Your task to perform on an android device: Open the phone app and click the voicemail tab. Image 0: 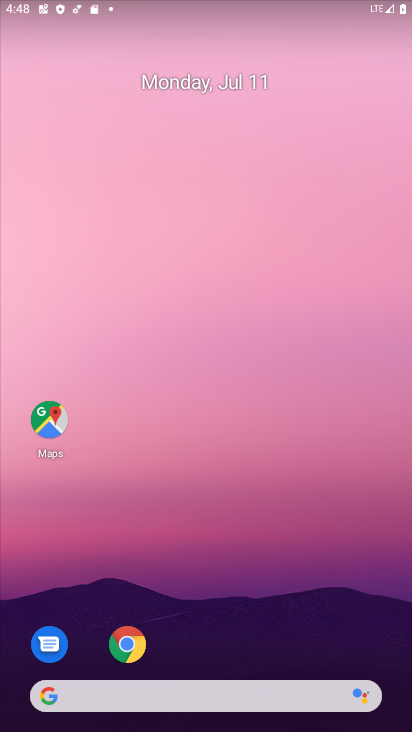
Step 0: press home button
Your task to perform on an android device: Open the phone app and click the voicemail tab. Image 1: 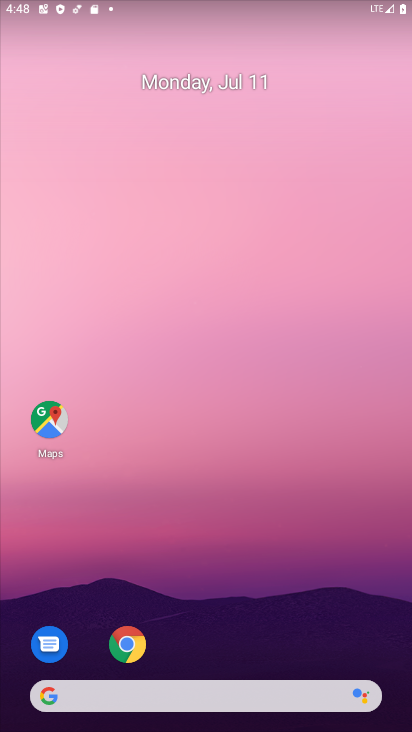
Step 1: drag from (231, 611) to (254, 296)
Your task to perform on an android device: Open the phone app and click the voicemail tab. Image 2: 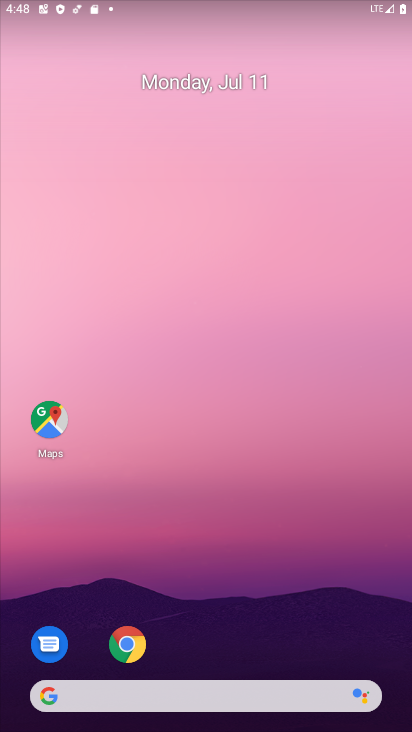
Step 2: drag from (274, 665) to (290, 159)
Your task to perform on an android device: Open the phone app and click the voicemail tab. Image 3: 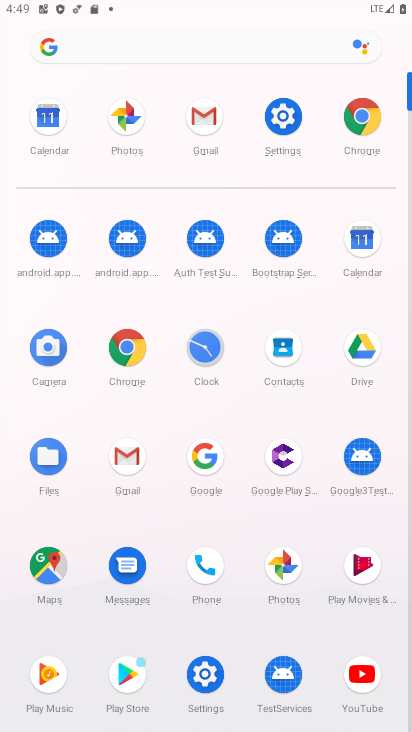
Step 3: drag from (237, 541) to (206, 564)
Your task to perform on an android device: Open the phone app and click the voicemail tab. Image 4: 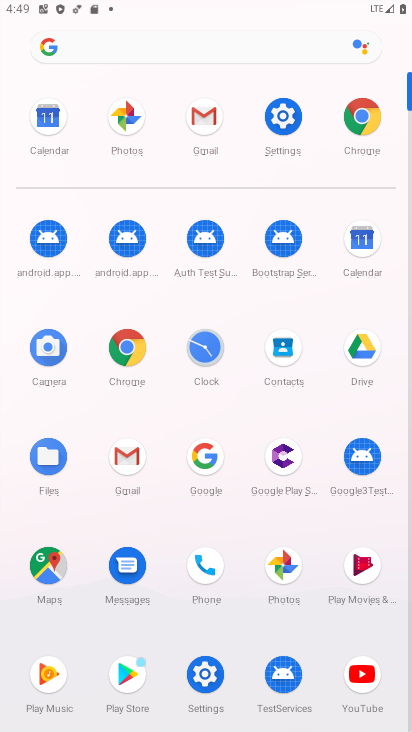
Step 4: click (204, 573)
Your task to perform on an android device: Open the phone app and click the voicemail tab. Image 5: 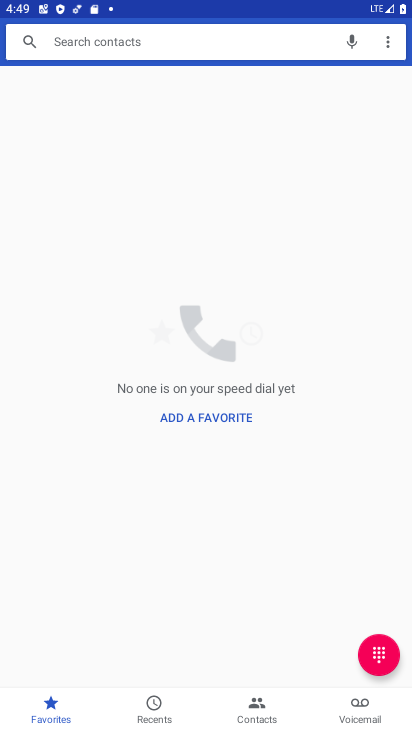
Step 5: click (374, 719)
Your task to perform on an android device: Open the phone app and click the voicemail tab. Image 6: 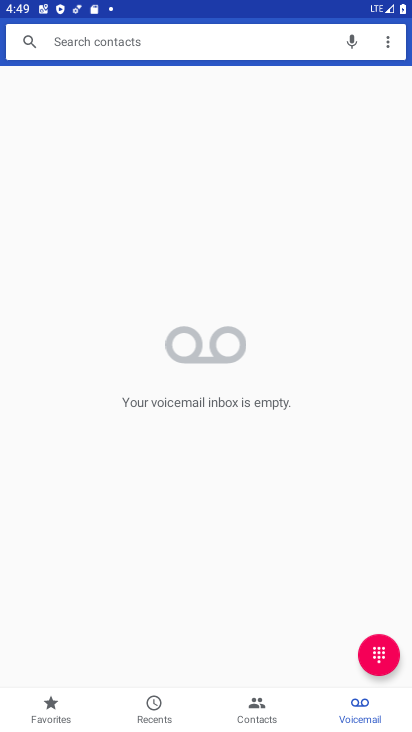
Step 6: task complete